Your task to perform on an android device: create a new album in the google photos Image 0: 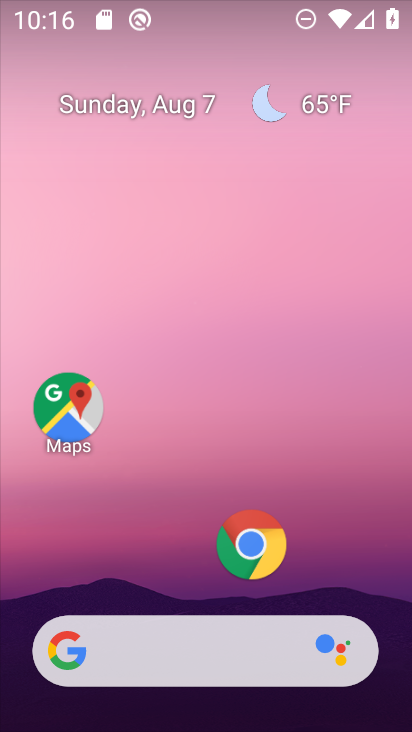
Step 0: drag from (206, 628) to (157, 42)
Your task to perform on an android device: create a new album in the google photos Image 1: 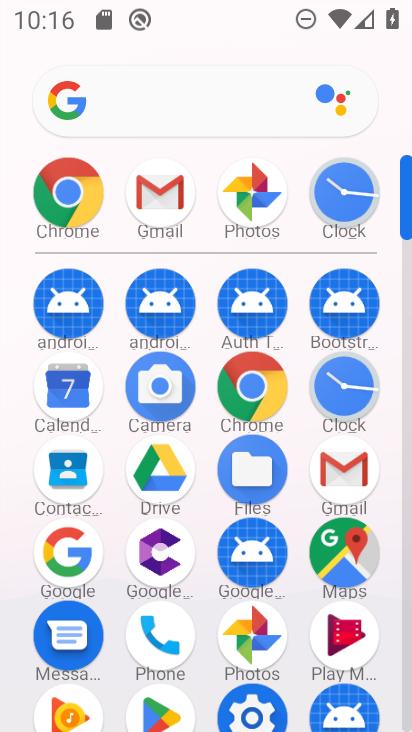
Step 1: click (262, 628)
Your task to perform on an android device: create a new album in the google photos Image 2: 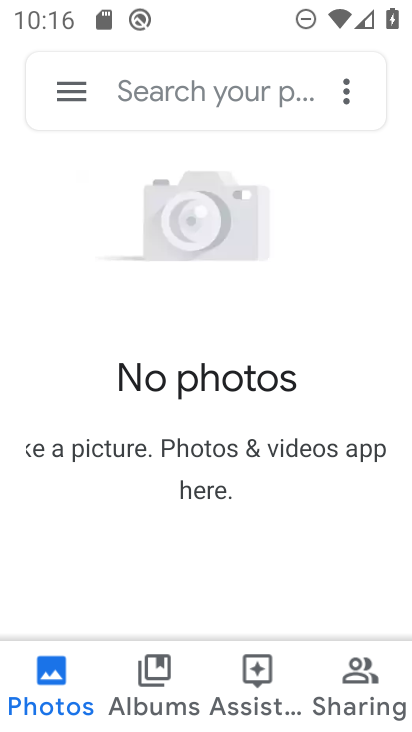
Step 2: click (154, 679)
Your task to perform on an android device: create a new album in the google photos Image 3: 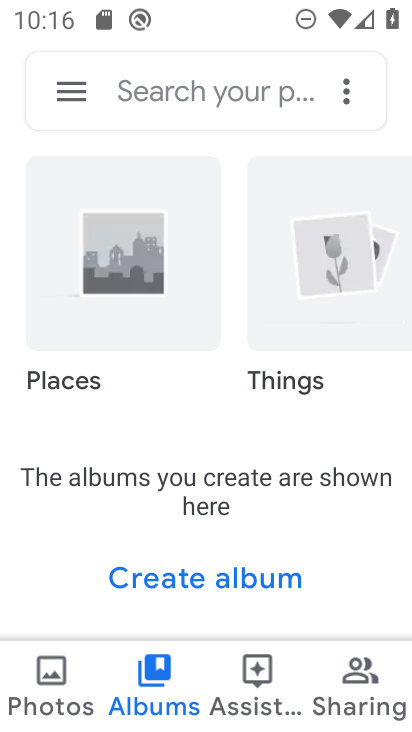
Step 3: task complete